Your task to perform on an android device: Go to internet settings Image 0: 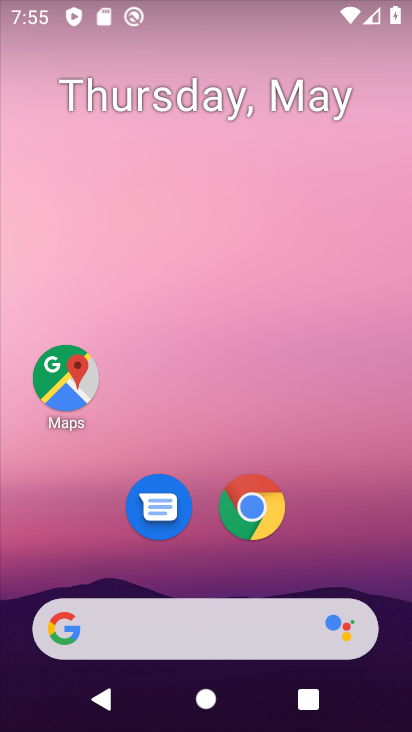
Step 0: drag from (328, 569) to (294, 119)
Your task to perform on an android device: Go to internet settings Image 1: 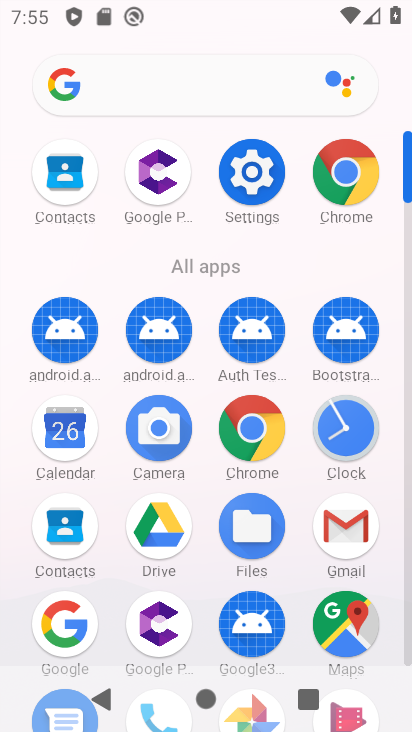
Step 1: click (264, 165)
Your task to perform on an android device: Go to internet settings Image 2: 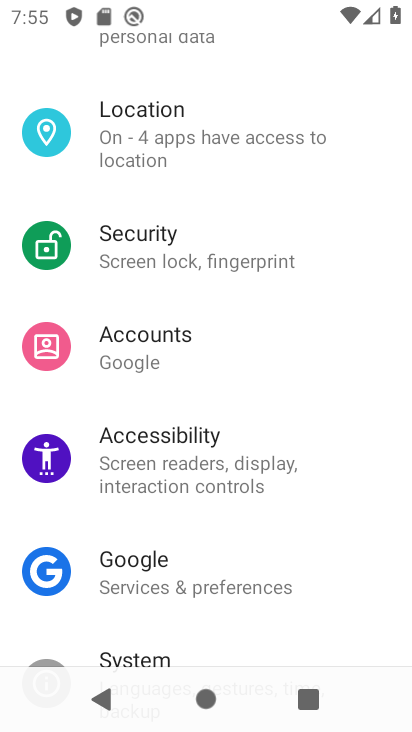
Step 2: drag from (224, 75) to (257, 592)
Your task to perform on an android device: Go to internet settings Image 3: 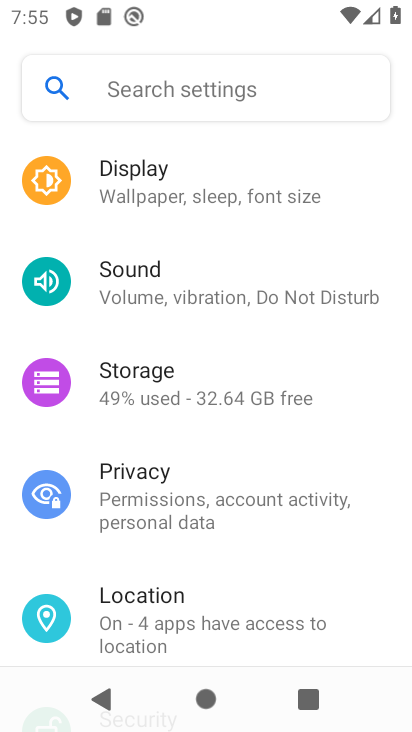
Step 3: drag from (176, 148) to (136, 690)
Your task to perform on an android device: Go to internet settings Image 4: 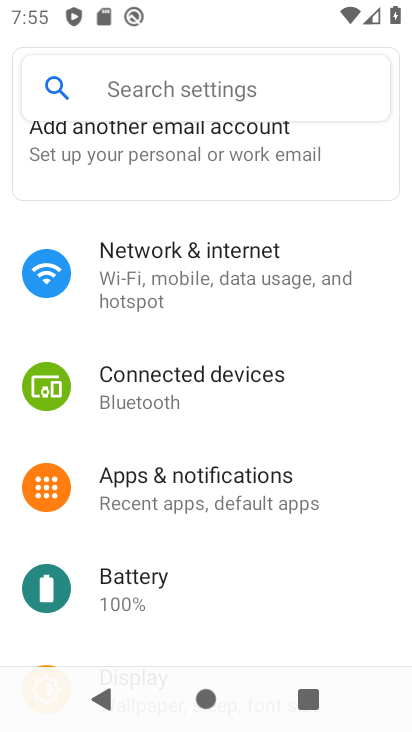
Step 4: click (169, 266)
Your task to perform on an android device: Go to internet settings Image 5: 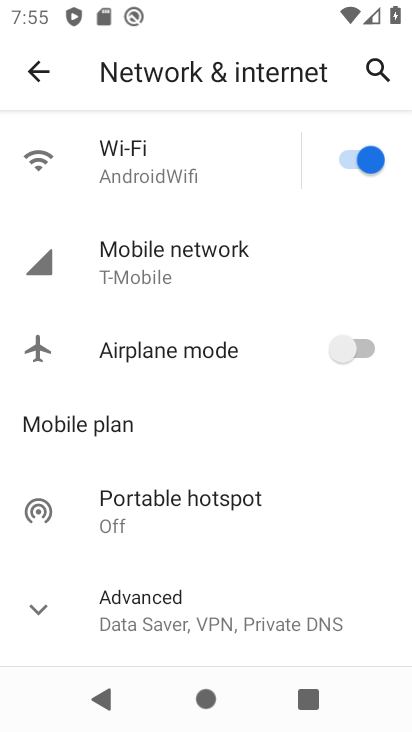
Step 5: task complete